Your task to perform on an android device: See recent photos Image 0: 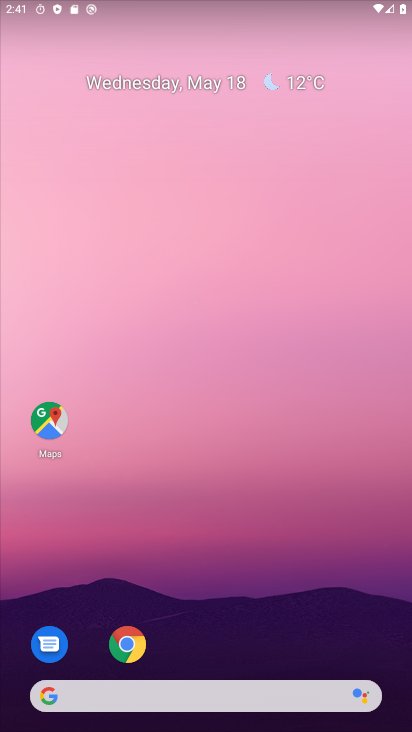
Step 0: drag from (358, 480) to (288, 190)
Your task to perform on an android device: See recent photos Image 1: 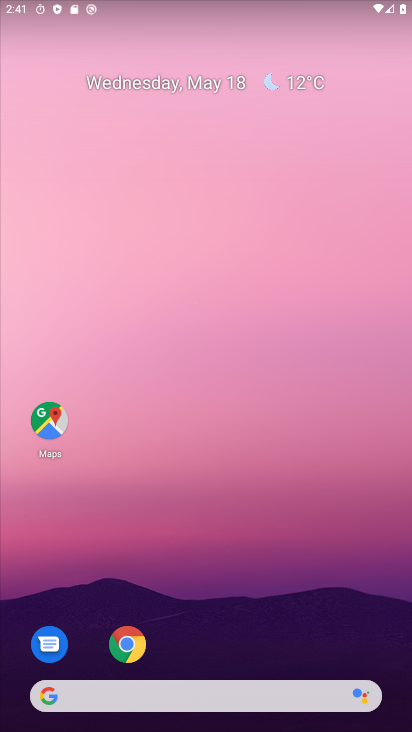
Step 1: drag from (405, 645) to (389, 232)
Your task to perform on an android device: See recent photos Image 2: 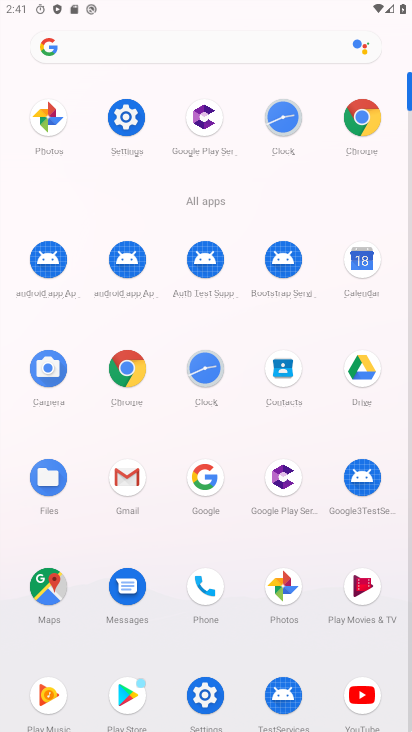
Step 2: click (285, 589)
Your task to perform on an android device: See recent photos Image 3: 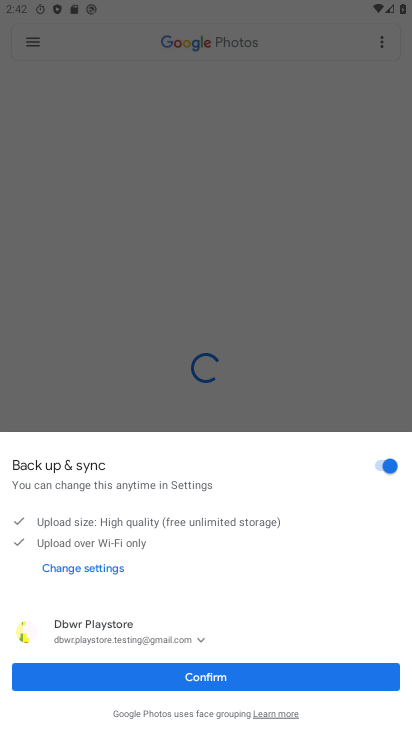
Step 3: click (243, 672)
Your task to perform on an android device: See recent photos Image 4: 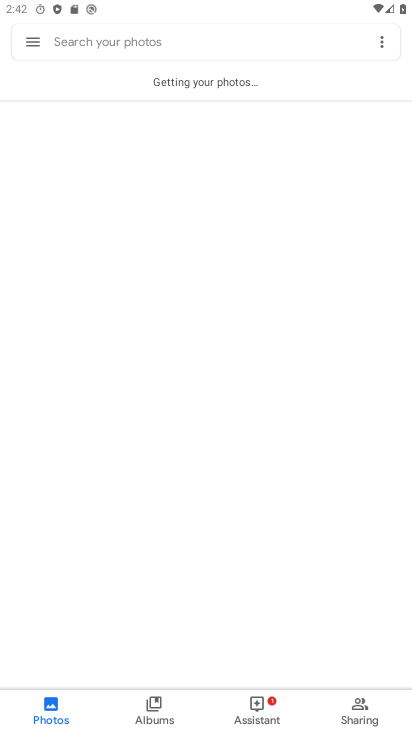
Step 4: click (52, 713)
Your task to perform on an android device: See recent photos Image 5: 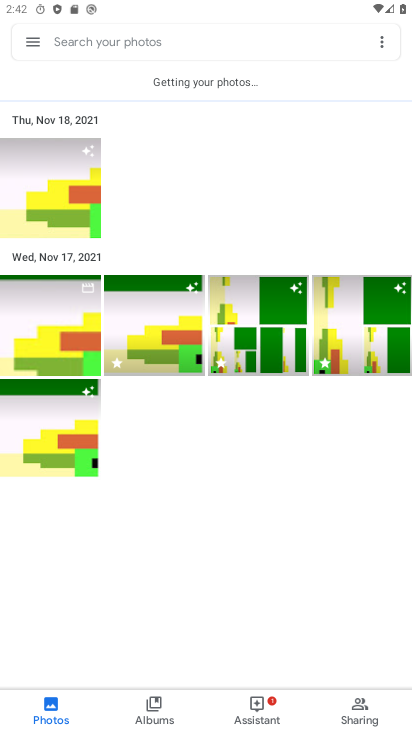
Step 5: click (46, 208)
Your task to perform on an android device: See recent photos Image 6: 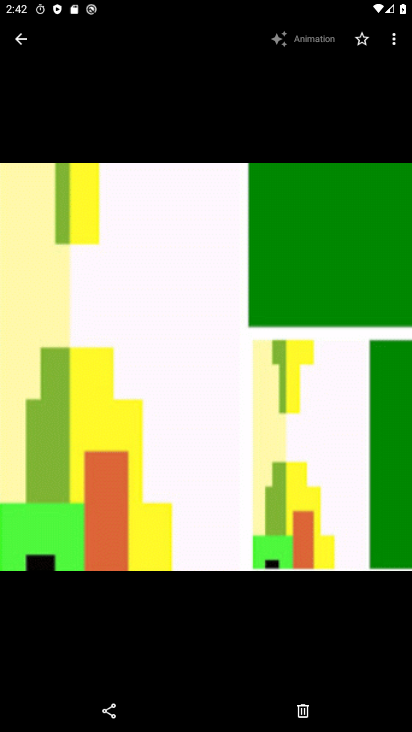
Step 6: task complete